Your task to perform on an android device: turn off smart reply in the gmail app Image 0: 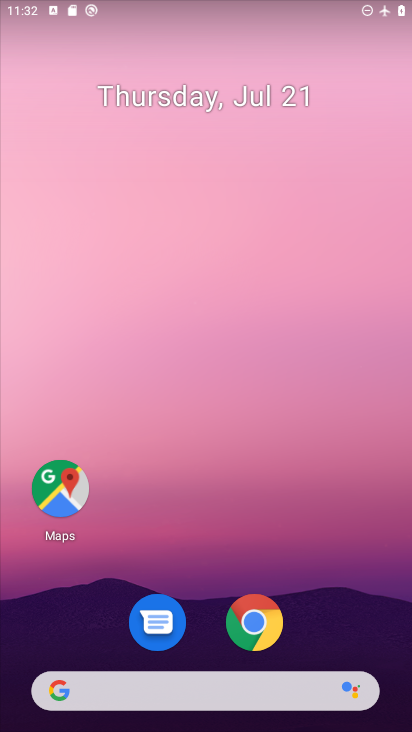
Step 0: drag from (174, 664) to (55, 21)
Your task to perform on an android device: turn off smart reply in the gmail app Image 1: 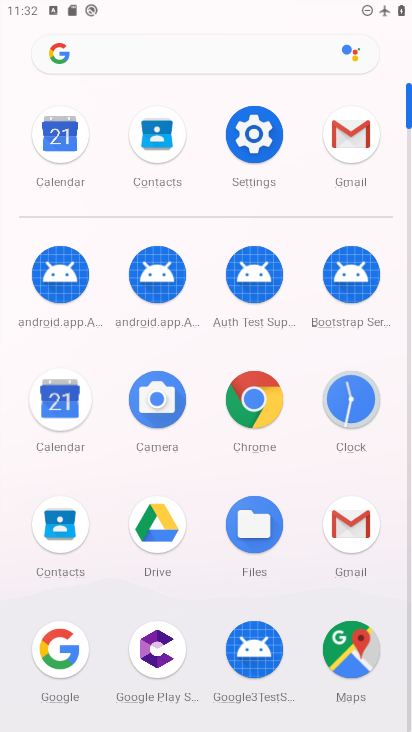
Step 1: click (359, 148)
Your task to perform on an android device: turn off smart reply in the gmail app Image 2: 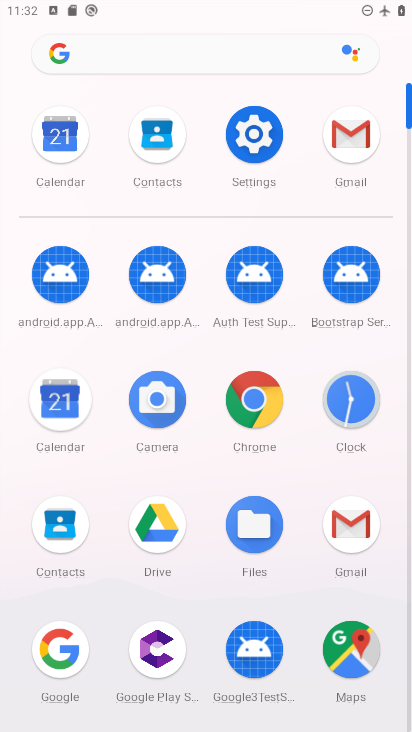
Step 2: click (359, 148)
Your task to perform on an android device: turn off smart reply in the gmail app Image 3: 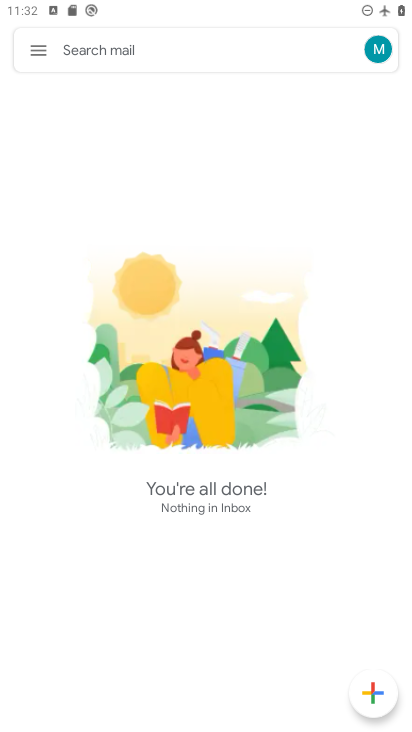
Step 3: click (33, 48)
Your task to perform on an android device: turn off smart reply in the gmail app Image 4: 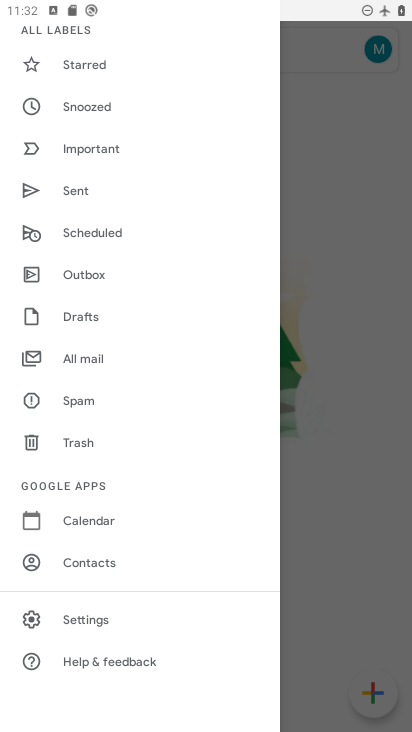
Step 4: click (63, 623)
Your task to perform on an android device: turn off smart reply in the gmail app Image 5: 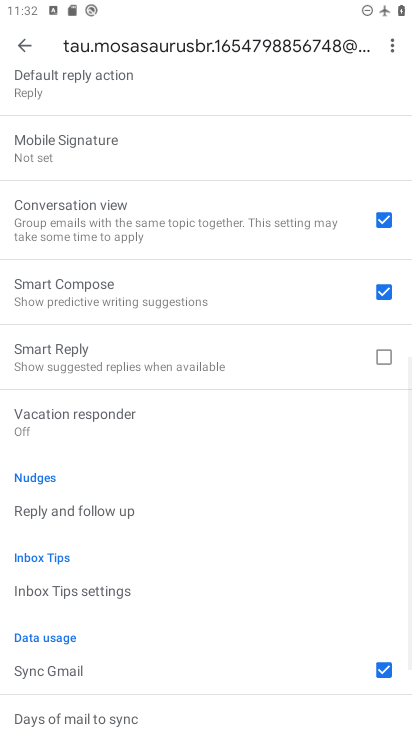
Step 5: task complete